Your task to perform on an android device: check data usage Image 0: 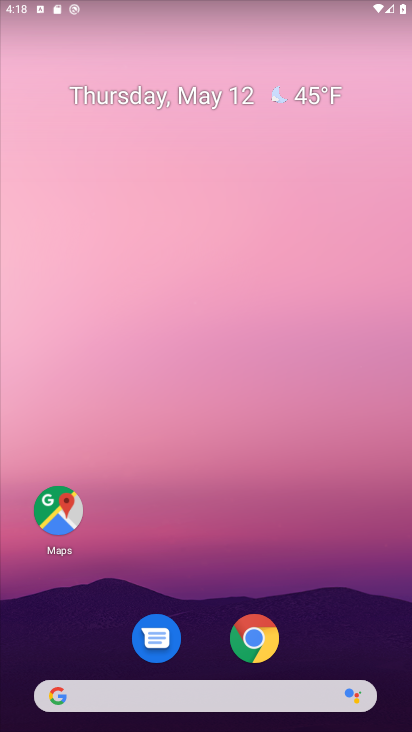
Step 0: drag from (300, 377) to (241, 152)
Your task to perform on an android device: check data usage Image 1: 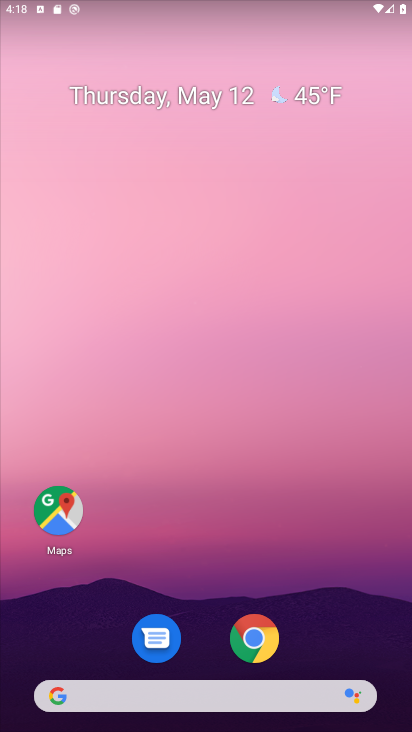
Step 1: drag from (303, 536) to (222, 30)
Your task to perform on an android device: check data usage Image 2: 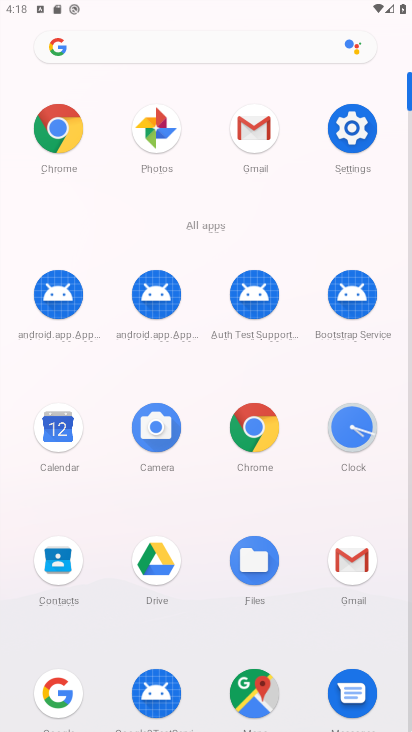
Step 2: click (346, 130)
Your task to perform on an android device: check data usage Image 3: 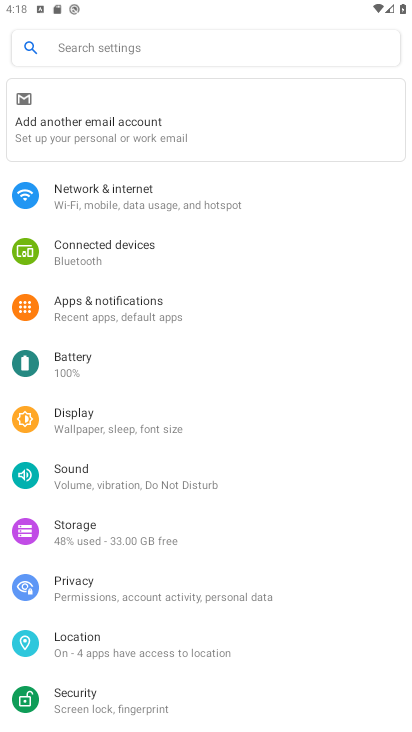
Step 3: click (127, 210)
Your task to perform on an android device: check data usage Image 4: 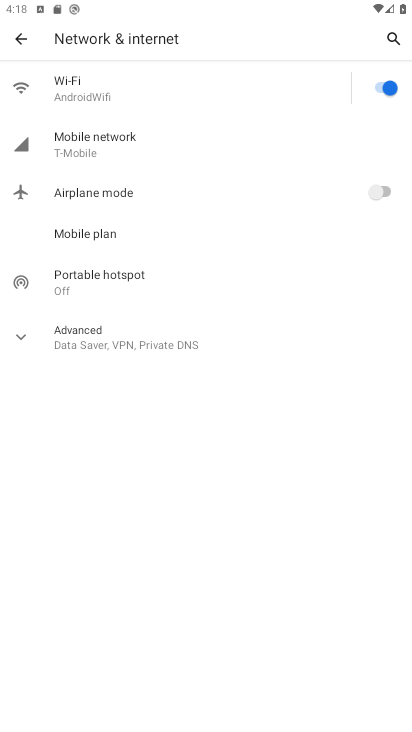
Step 4: click (110, 148)
Your task to perform on an android device: check data usage Image 5: 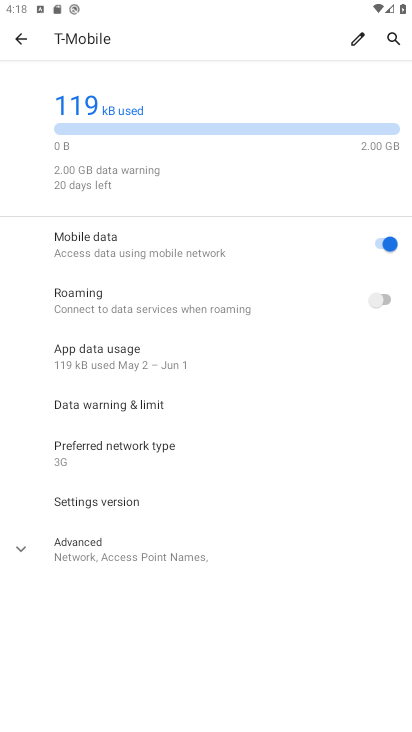
Step 5: task complete